Your task to perform on an android device: Open Reddit.com Image 0: 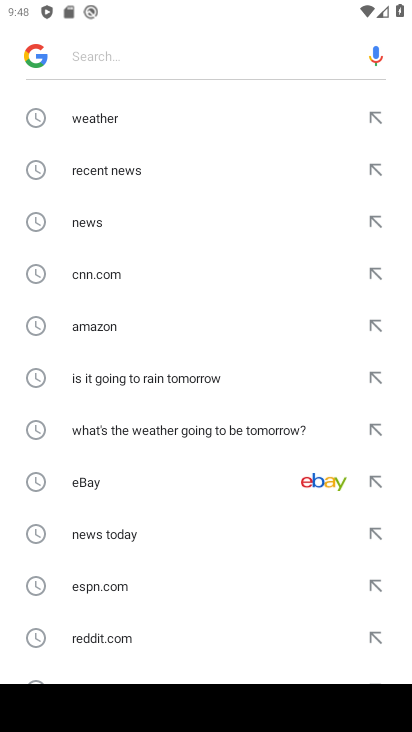
Step 0: type "reddit"
Your task to perform on an android device: Open Reddit.com Image 1: 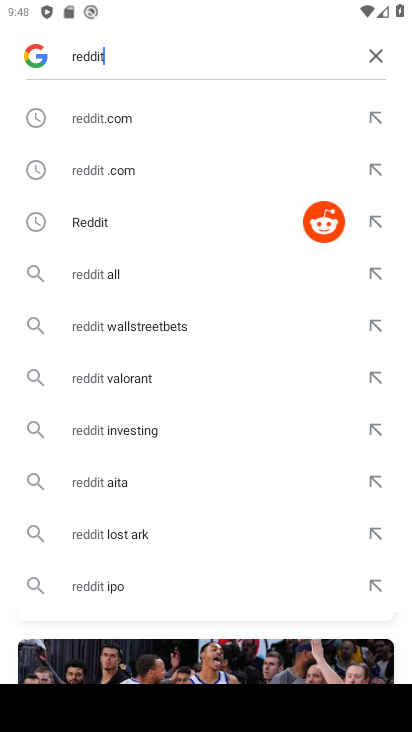
Step 1: click (175, 122)
Your task to perform on an android device: Open Reddit.com Image 2: 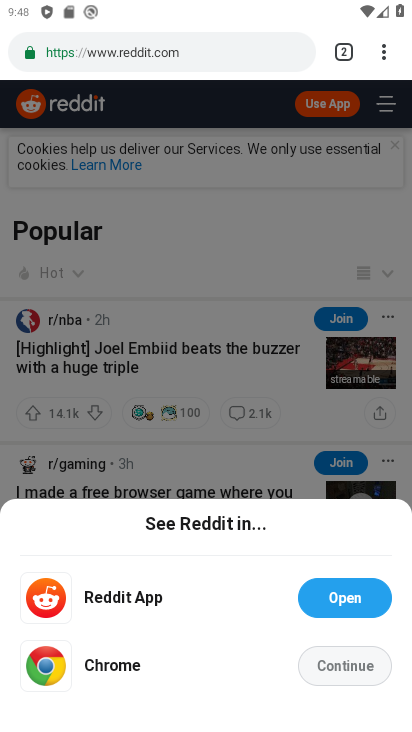
Step 2: click (163, 669)
Your task to perform on an android device: Open Reddit.com Image 3: 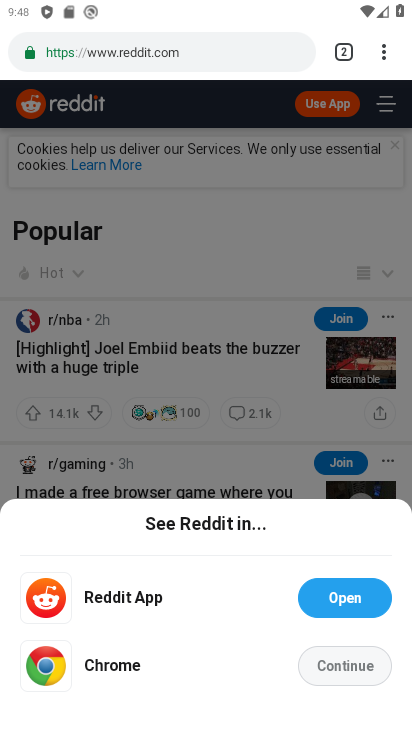
Step 3: click (354, 670)
Your task to perform on an android device: Open Reddit.com Image 4: 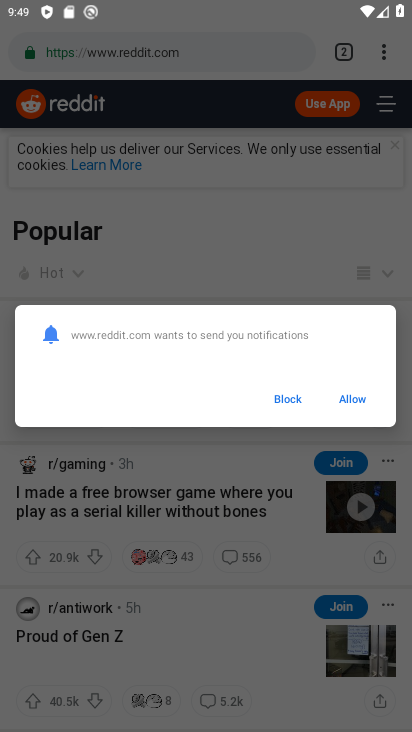
Step 4: click (340, 395)
Your task to perform on an android device: Open Reddit.com Image 5: 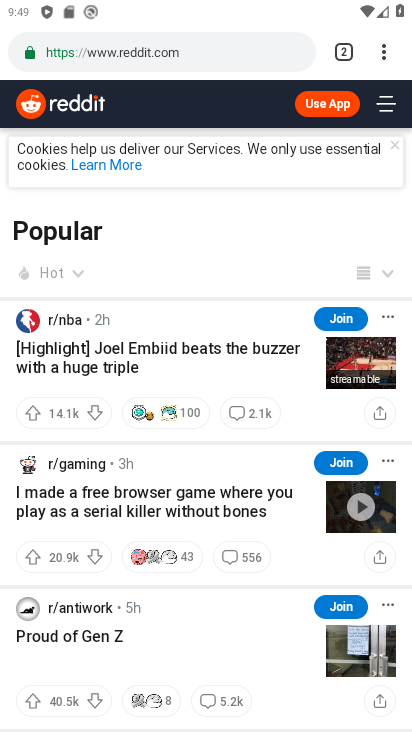
Step 5: task complete